Your task to perform on an android device: clear all cookies in the chrome app Image 0: 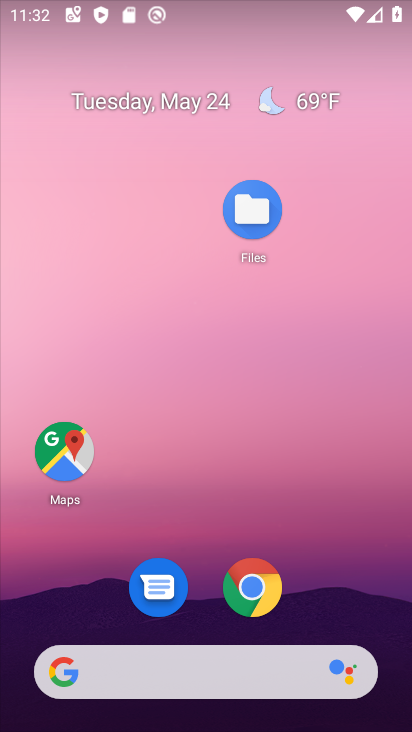
Step 0: click (257, 590)
Your task to perform on an android device: clear all cookies in the chrome app Image 1: 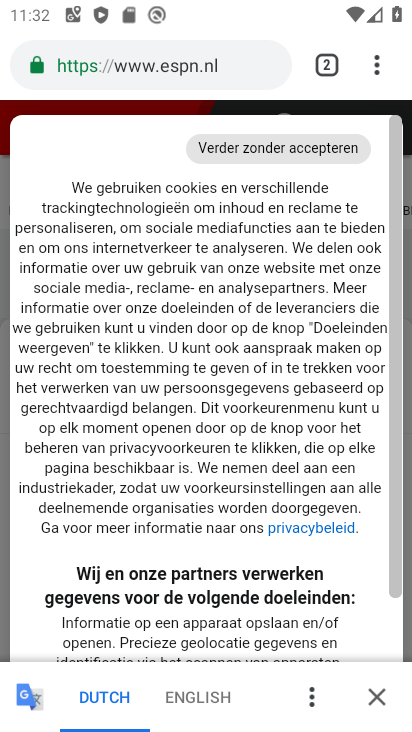
Step 1: click (375, 66)
Your task to perform on an android device: clear all cookies in the chrome app Image 2: 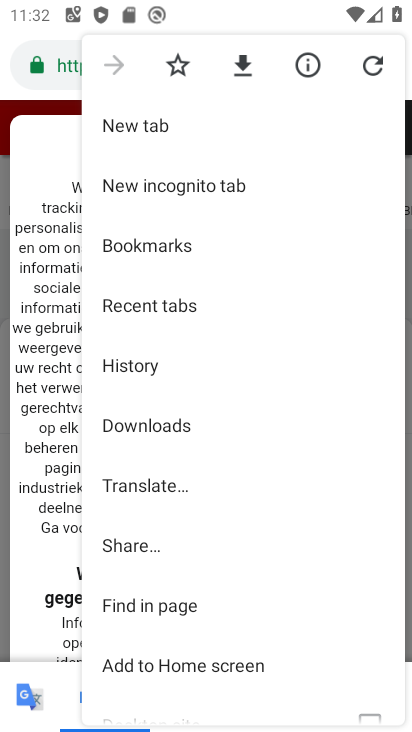
Step 2: drag from (216, 619) to (190, 178)
Your task to perform on an android device: clear all cookies in the chrome app Image 3: 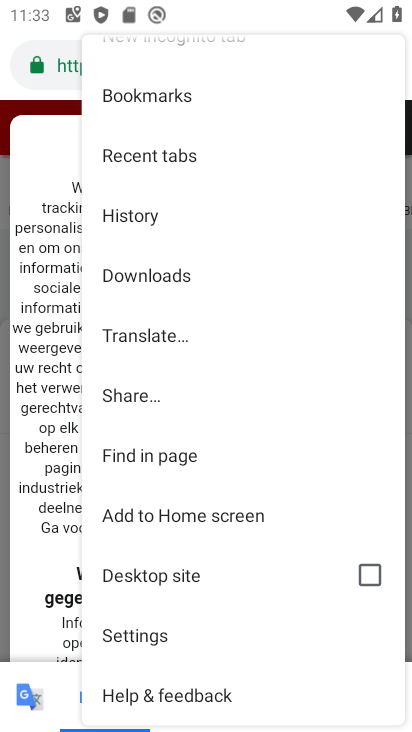
Step 3: click (141, 641)
Your task to perform on an android device: clear all cookies in the chrome app Image 4: 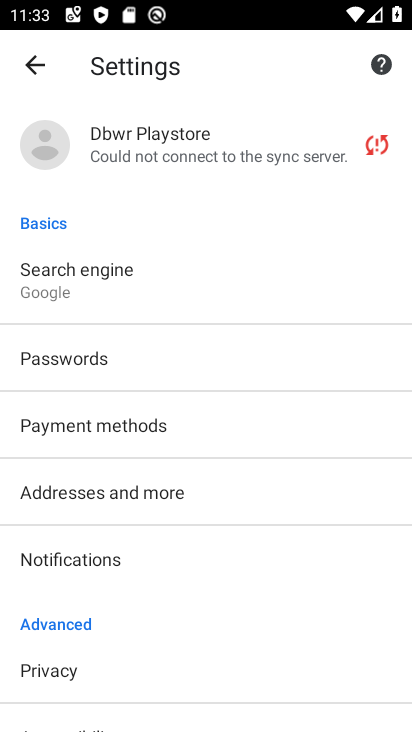
Step 4: drag from (183, 622) to (194, 239)
Your task to perform on an android device: clear all cookies in the chrome app Image 5: 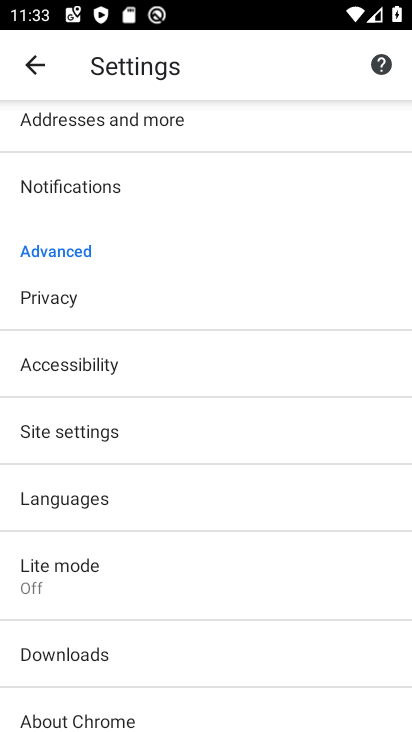
Step 5: click (90, 437)
Your task to perform on an android device: clear all cookies in the chrome app Image 6: 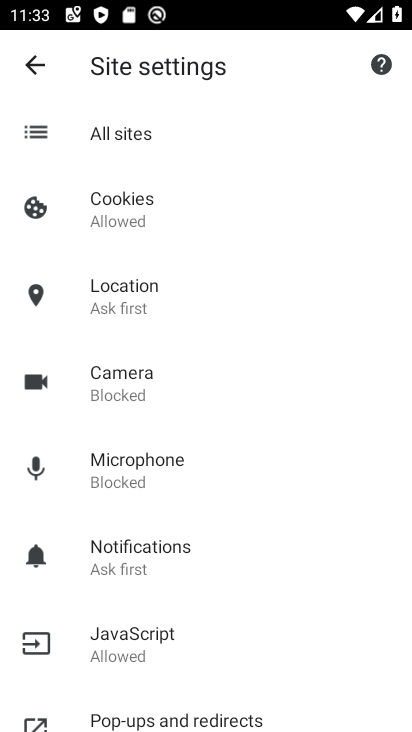
Step 6: click (134, 216)
Your task to perform on an android device: clear all cookies in the chrome app Image 7: 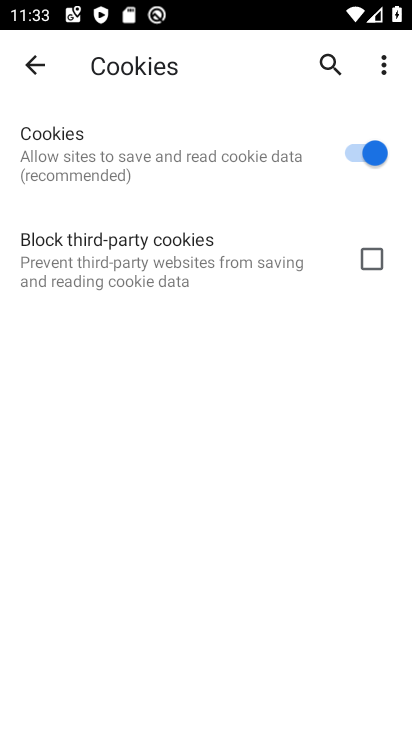
Step 7: task complete